Your task to perform on an android device: Clear the cart on newegg.com. Search for bose soundsport free on newegg.com, select the first entry, add it to the cart, then select checkout. Image 0: 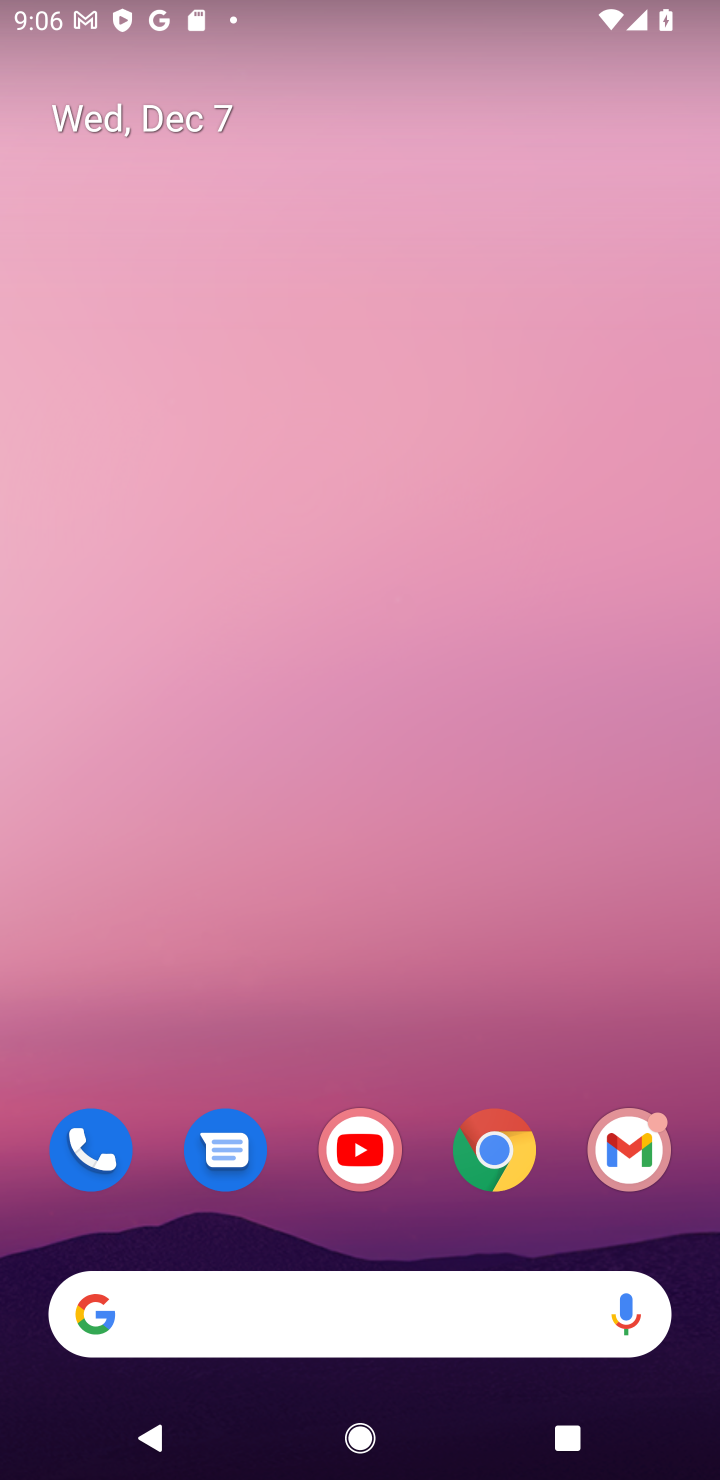
Step 0: click (487, 1158)
Your task to perform on an android device: Clear the cart on newegg.com. Search for bose soundsport free on newegg.com, select the first entry, add it to the cart, then select checkout. Image 1: 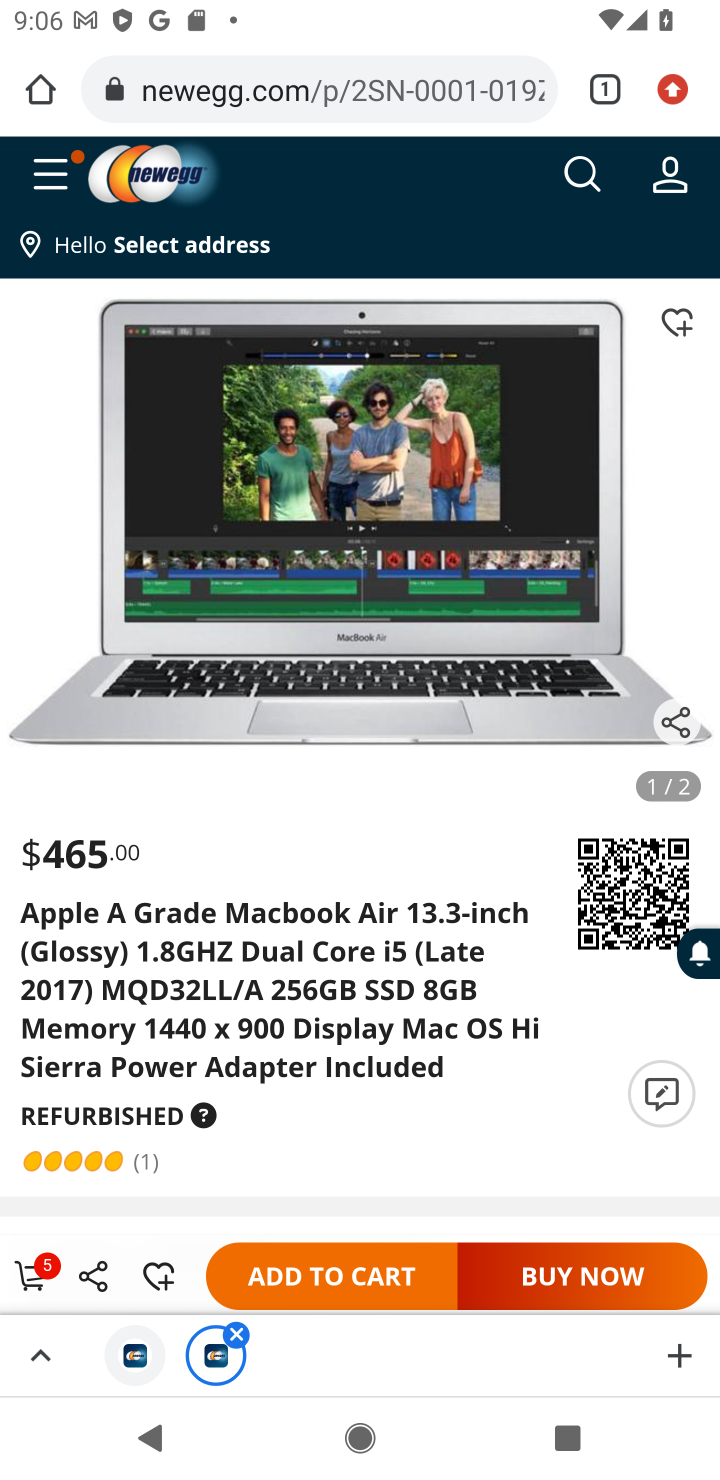
Step 1: click (24, 1280)
Your task to perform on an android device: Clear the cart on newegg.com. Search for bose soundsport free on newegg.com, select the first entry, add it to the cart, then select checkout. Image 2: 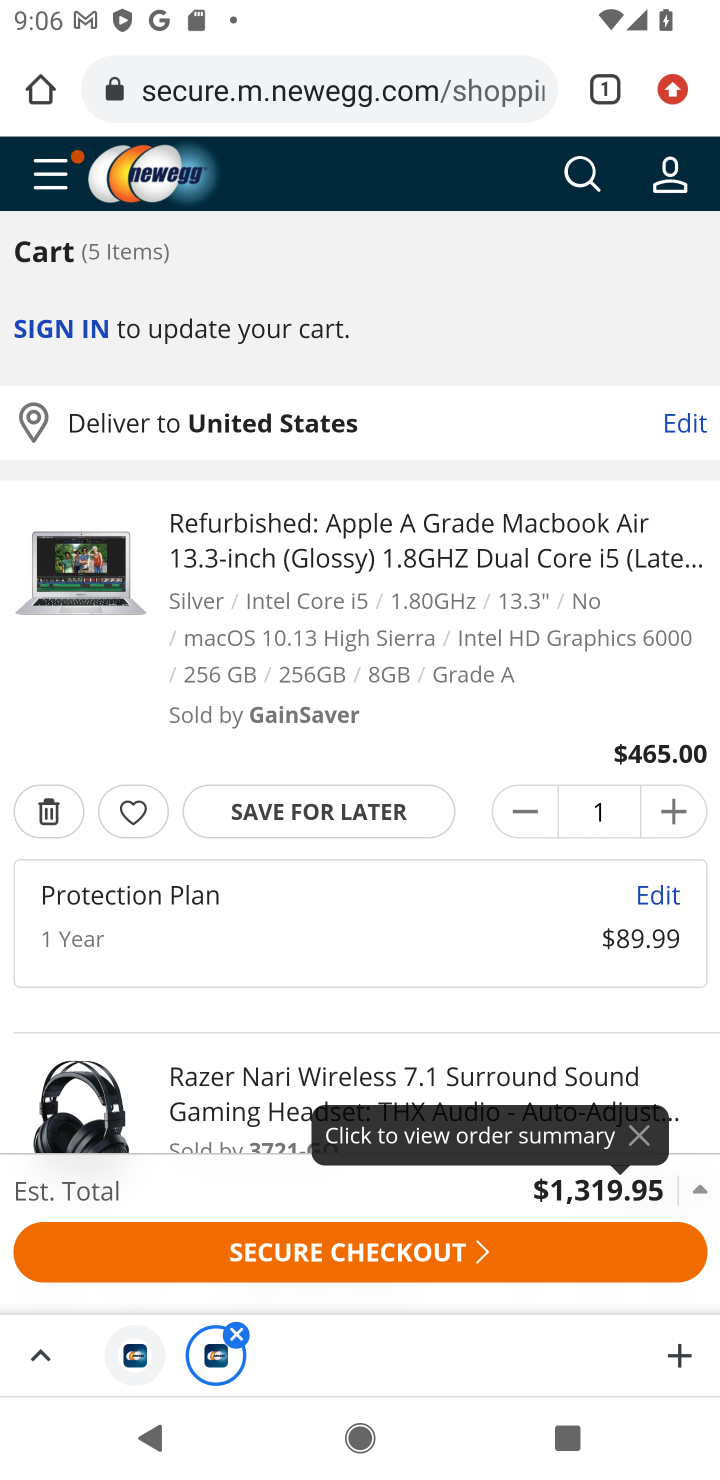
Step 2: click (526, 819)
Your task to perform on an android device: Clear the cart on newegg.com. Search for bose soundsport free on newegg.com, select the first entry, add it to the cart, then select checkout. Image 3: 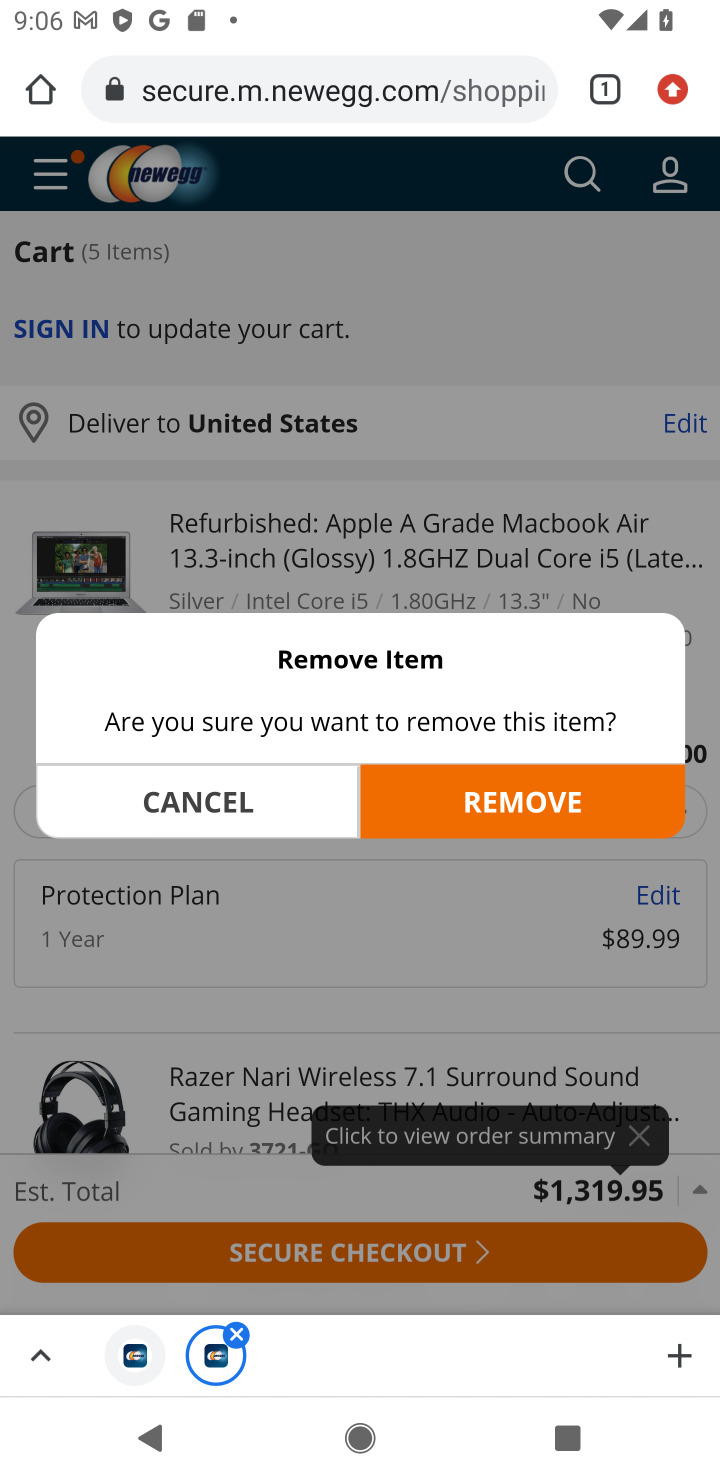
Step 3: click (526, 819)
Your task to perform on an android device: Clear the cart on newegg.com. Search for bose soundsport free on newegg.com, select the first entry, add it to the cart, then select checkout. Image 4: 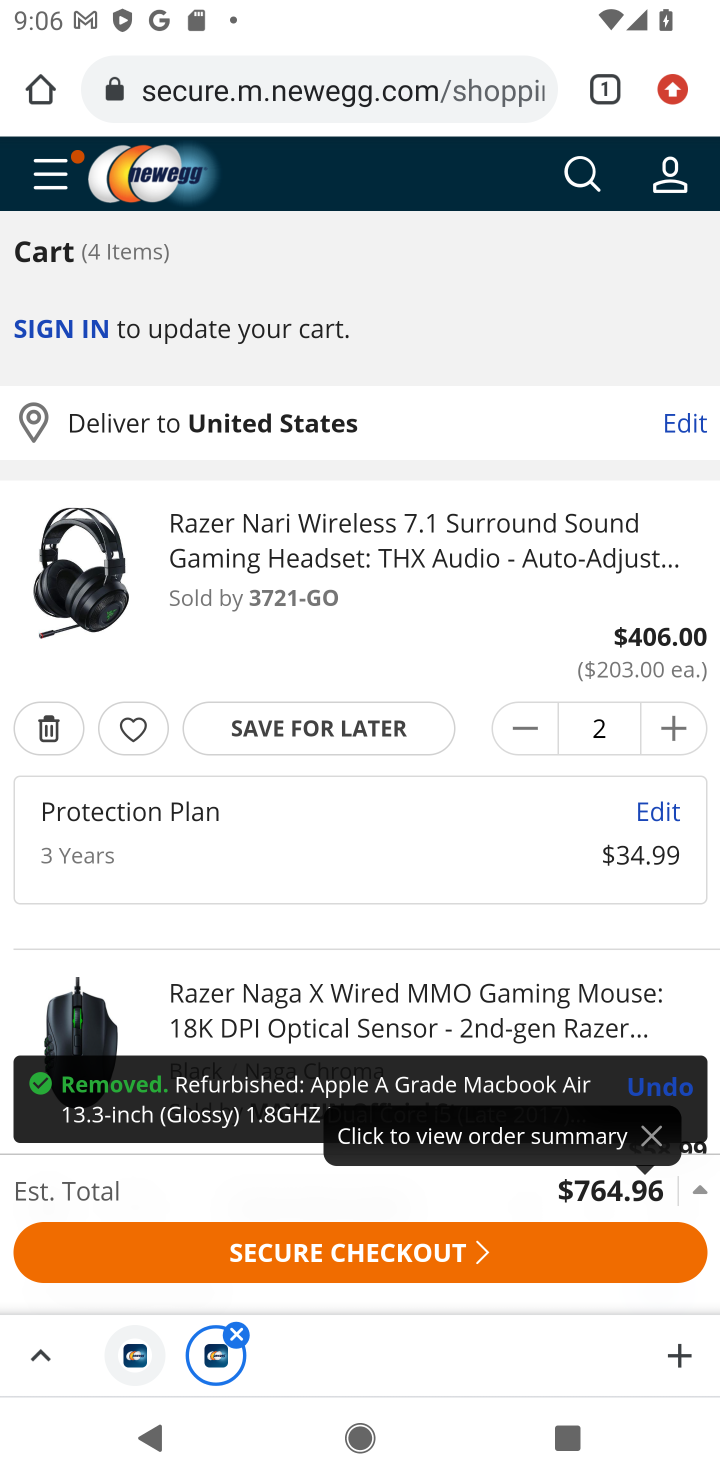
Step 4: click (516, 735)
Your task to perform on an android device: Clear the cart on newegg.com. Search for bose soundsport free on newegg.com, select the first entry, add it to the cart, then select checkout. Image 5: 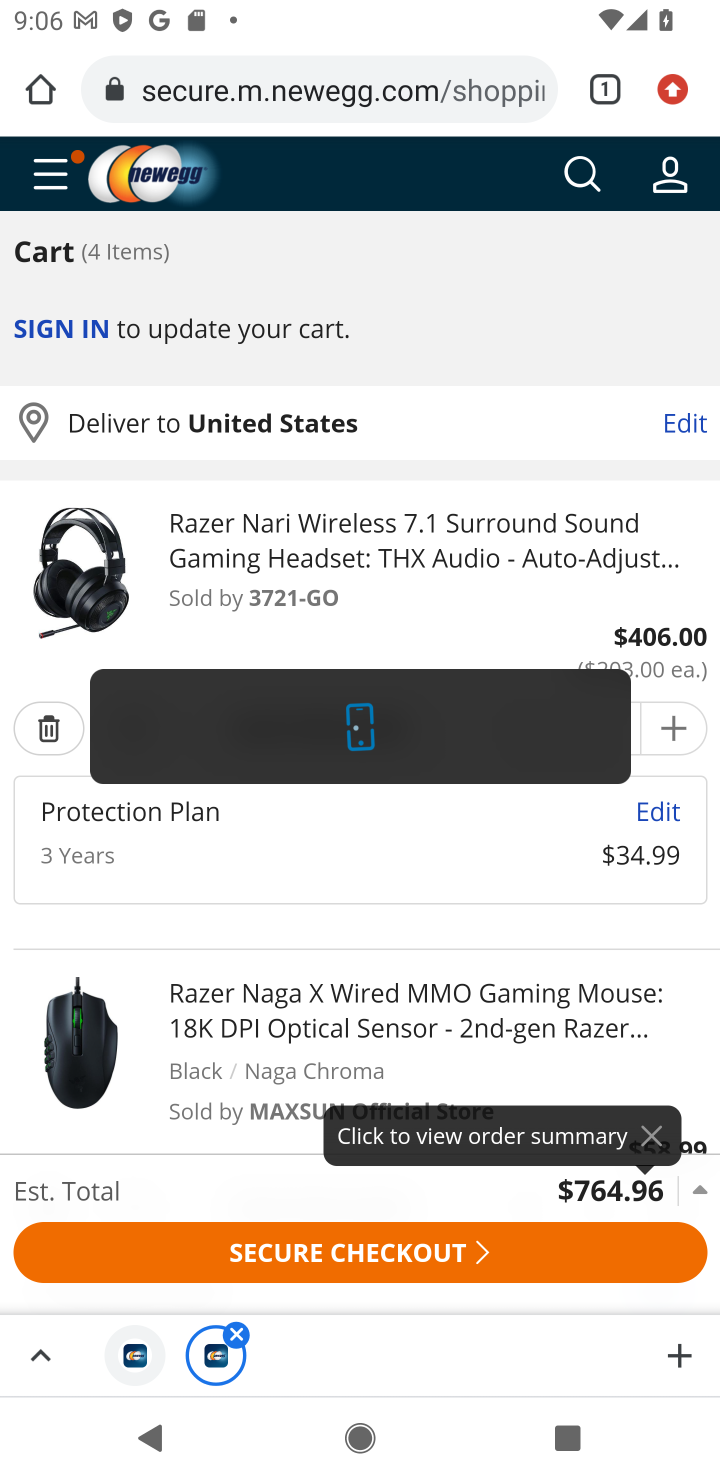
Step 5: click (516, 735)
Your task to perform on an android device: Clear the cart on newegg.com. Search for bose soundsport free on newegg.com, select the first entry, add it to the cart, then select checkout. Image 6: 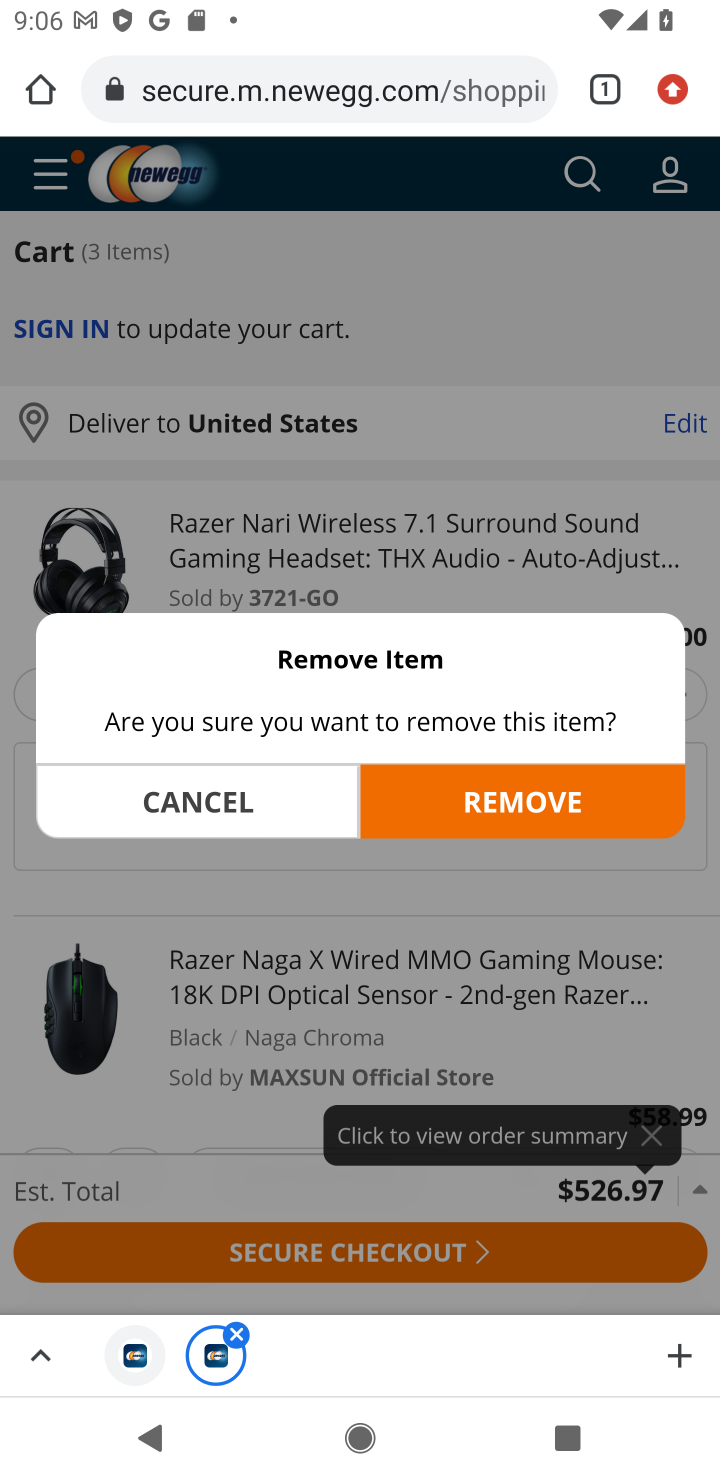
Step 6: click (501, 797)
Your task to perform on an android device: Clear the cart on newegg.com. Search for bose soundsport free on newegg.com, select the first entry, add it to the cart, then select checkout. Image 7: 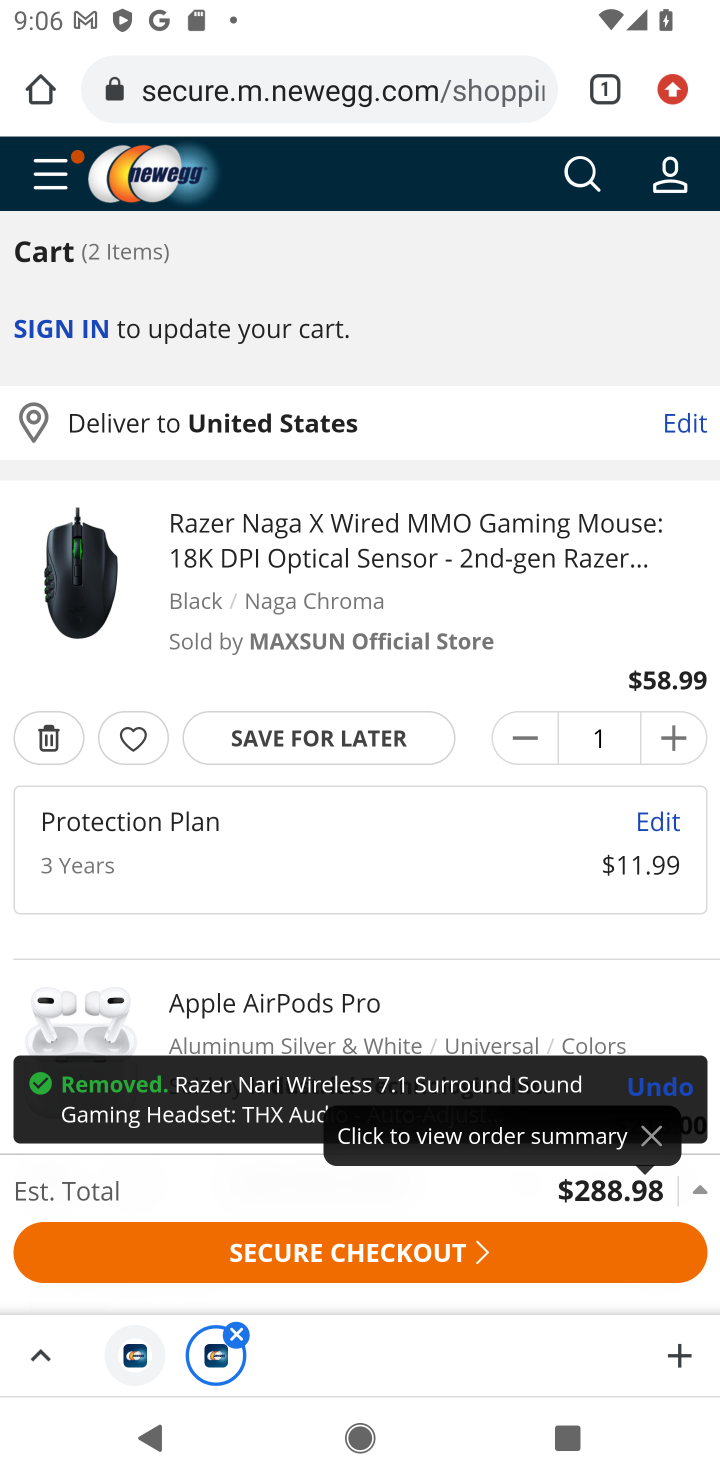
Step 7: click (522, 745)
Your task to perform on an android device: Clear the cart on newegg.com. Search for bose soundsport free on newegg.com, select the first entry, add it to the cart, then select checkout. Image 8: 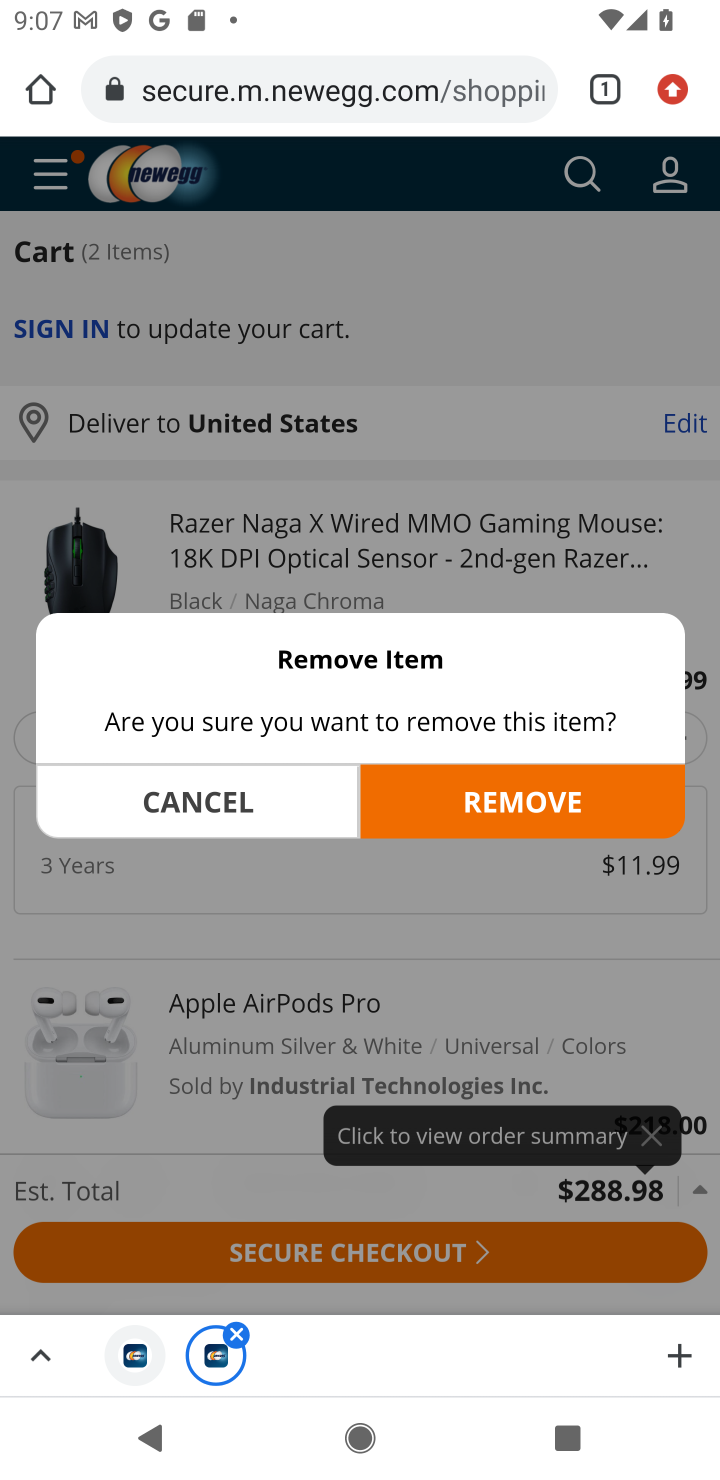
Step 8: click (499, 812)
Your task to perform on an android device: Clear the cart on newegg.com. Search for bose soundsport free on newegg.com, select the first entry, add it to the cart, then select checkout. Image 9: 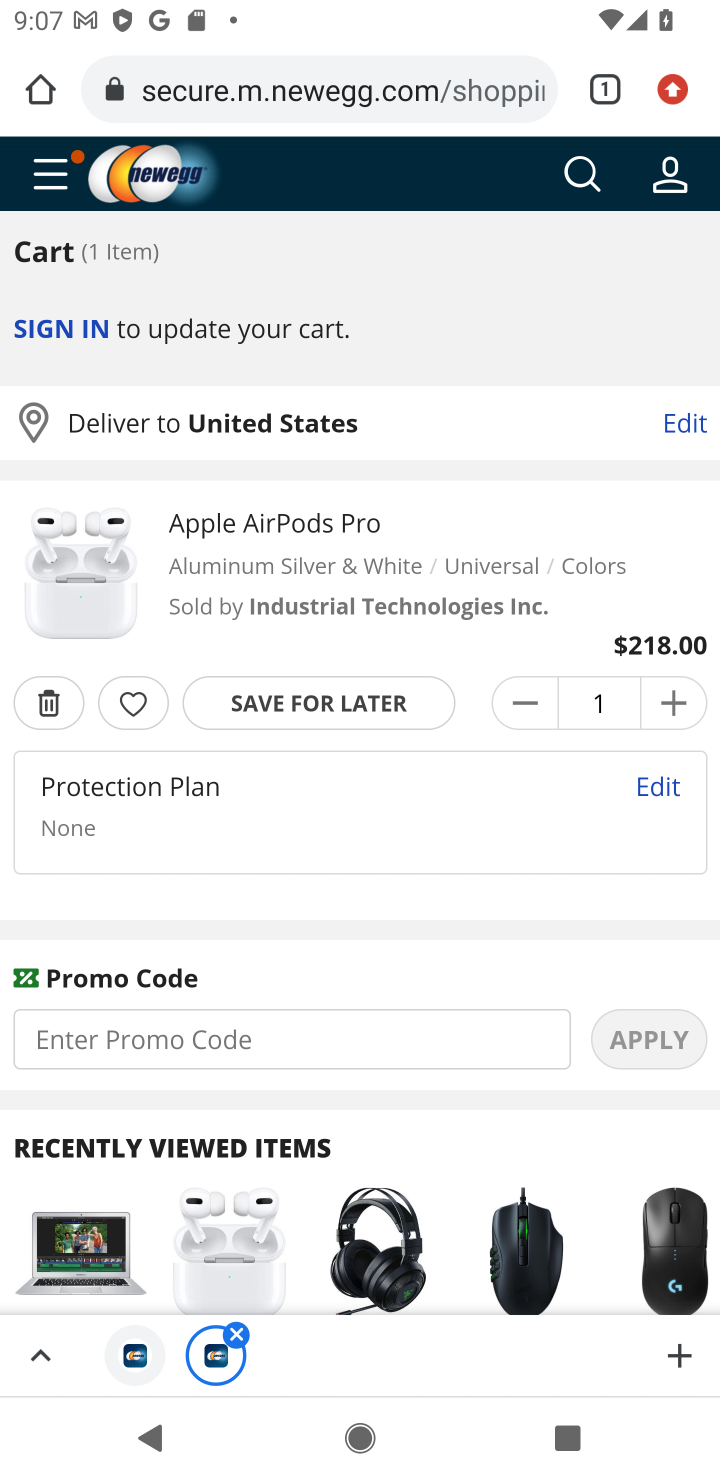
Step 9: click (522, 705)
Your task to perform on an android device: Clear the cart on newegg.com. Search for bose soundsport free on newegg.com, select the first entry, add it to the cart, then select checkout. Image 10: 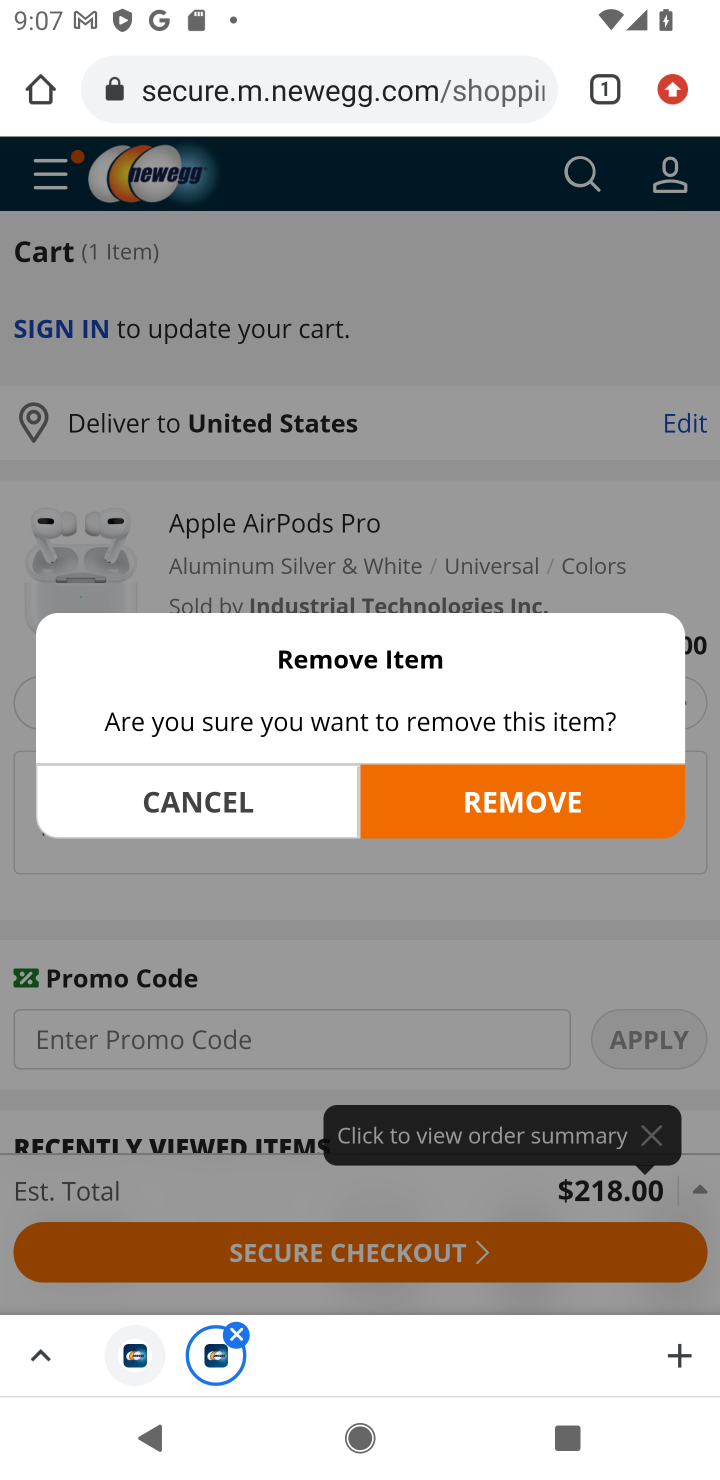
Step 10: click (495, 825)
Your task to perform on an android device: Clear the cart on newegg.com. Search for bose soundsport free on newegg.com, select the first entry, add it to the cart, then select checkout. Image 11: 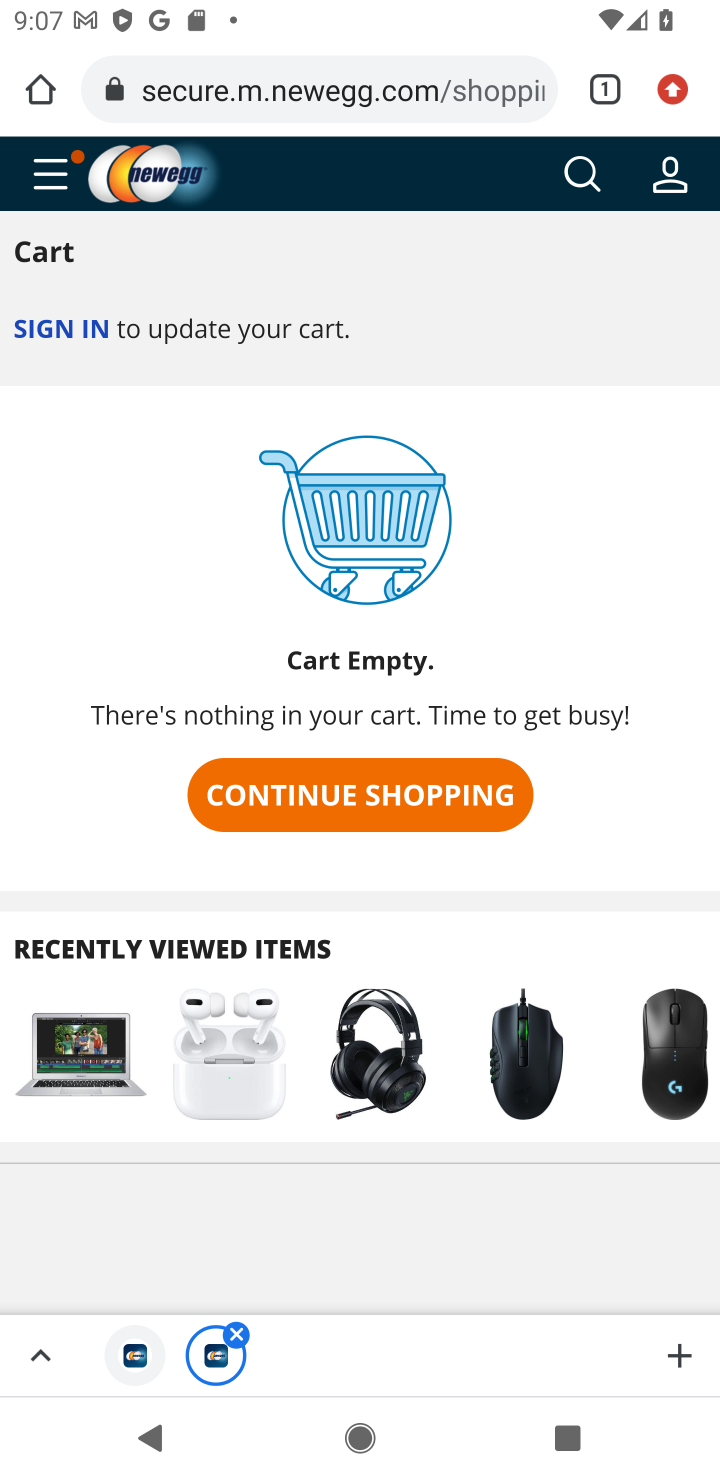
Step 11: click (584, 199)
Your task to perform on an android device: Clear the cart on newegg.com. Search for bose soundsport free on newegg.com, select the first entry, add it to the cart, then select checkout. Image 12: 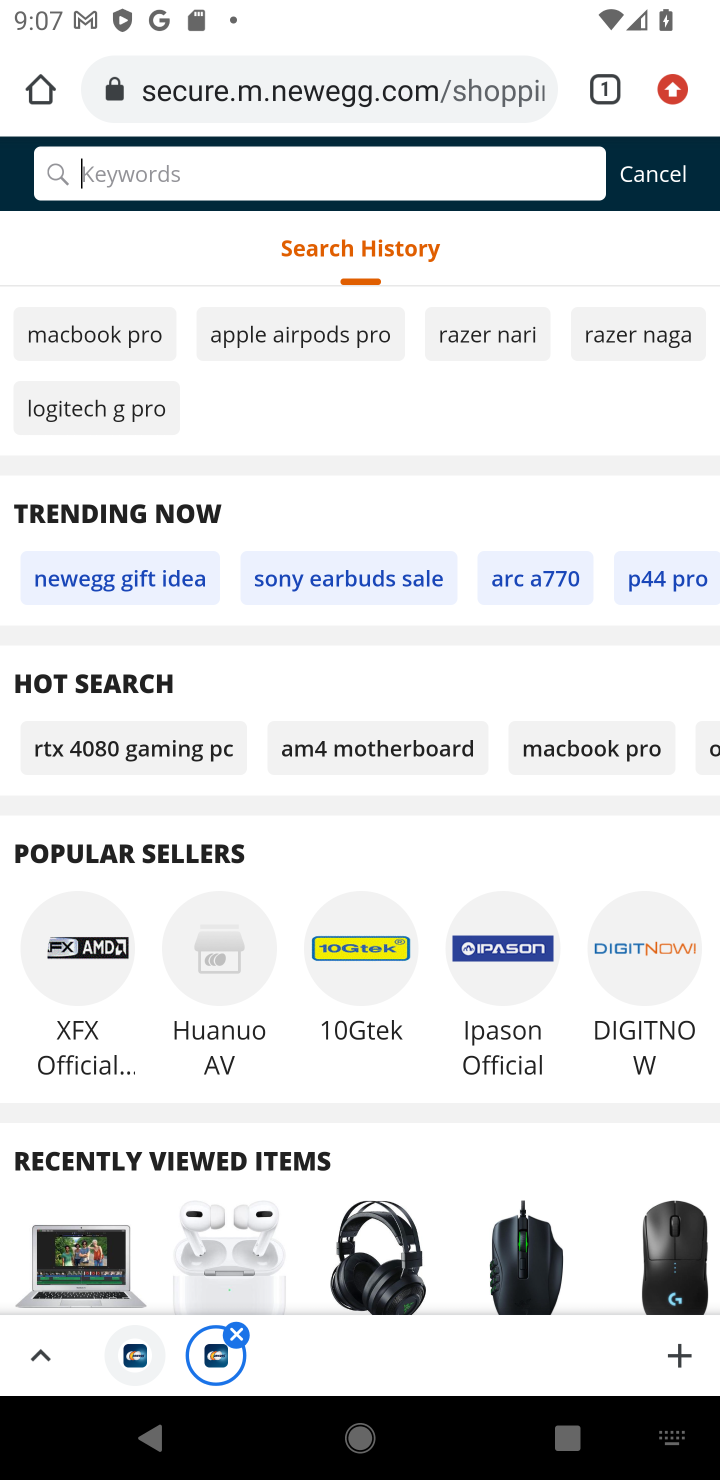
Step 12: type "bose soundsport free"
Your task to perform on an android device: Clear the cart on newegg.com. Search for bose soundsport free on newegg.com, select the first entry, add it to the cart, then select checkout. Image 13: 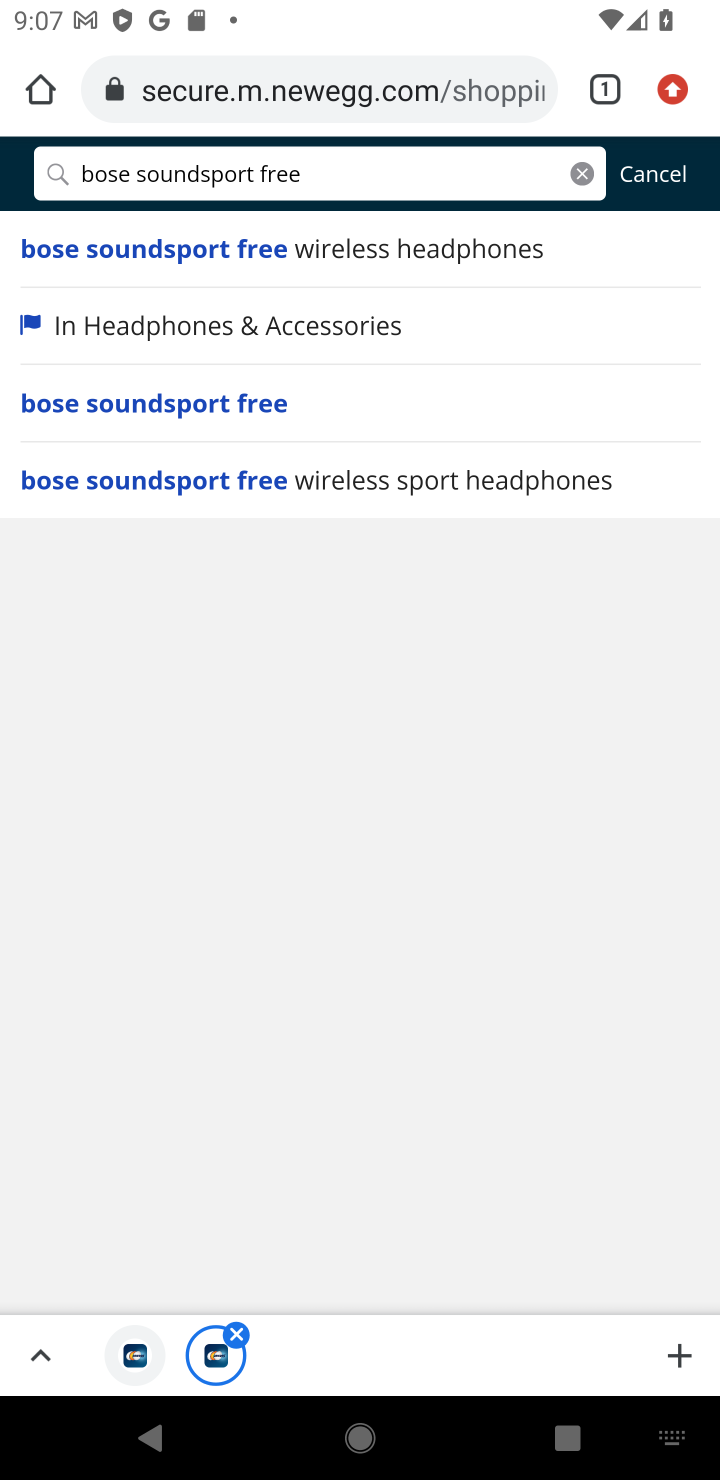
Step 13: press enter
Your task to perform on an android device: Clear the cart on newegg.com. Search for bose soundsport free on newegg.com, select the first entry, add it to the cart, then select checkout. Image 14: 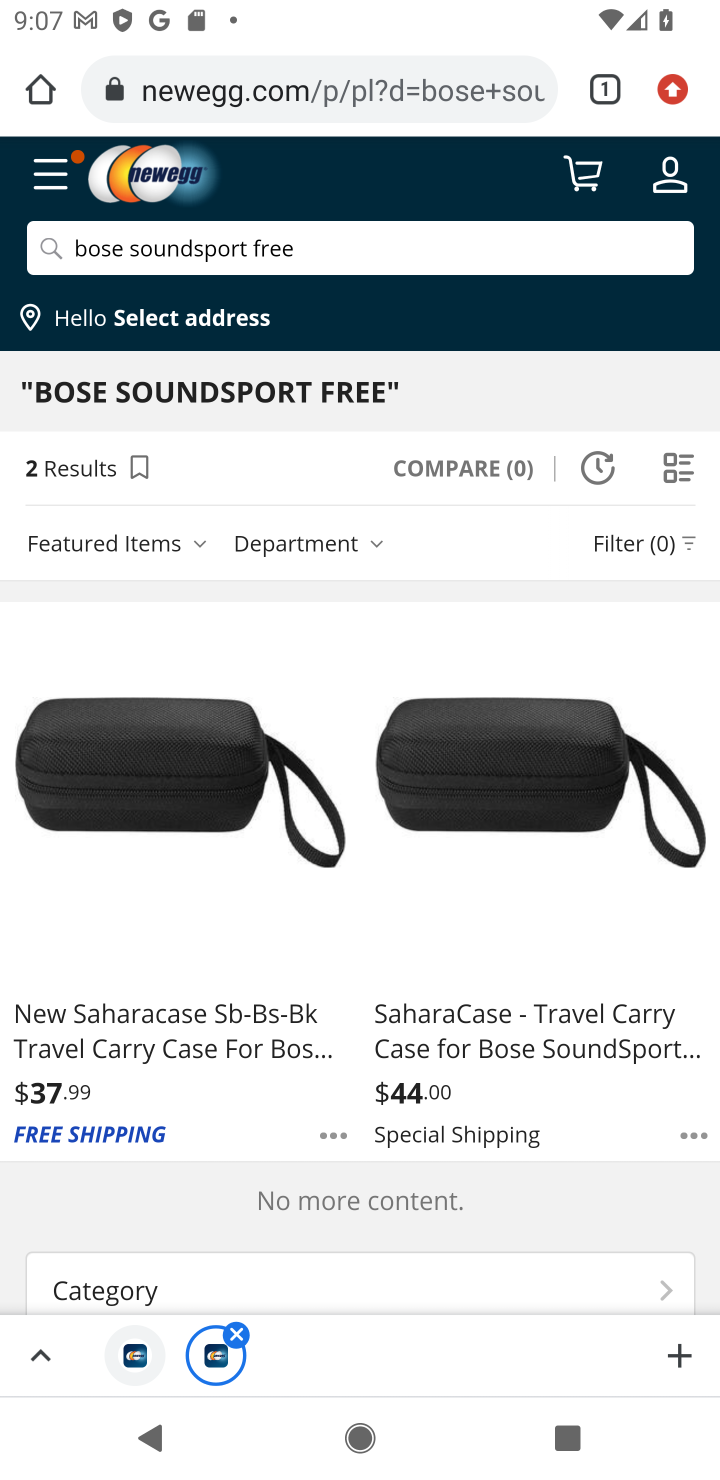
Step 14: task complete